Your task to perform on an android device: delete the emails in spam in the gmail app Image 0: 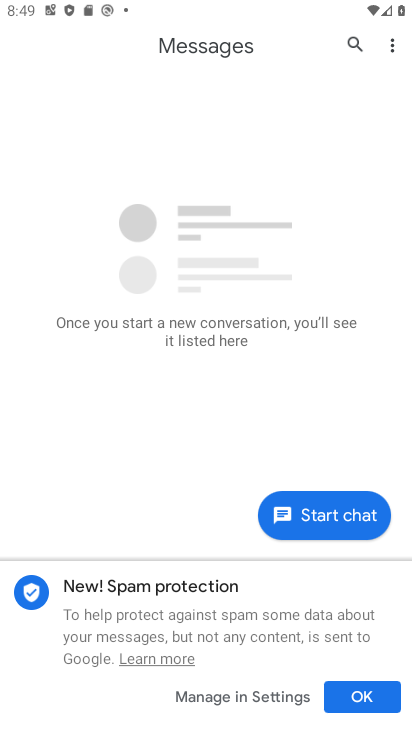
Step 0: press back button
Your task to perform on an android device: delete the emails in spam in the gmail app Image 1: 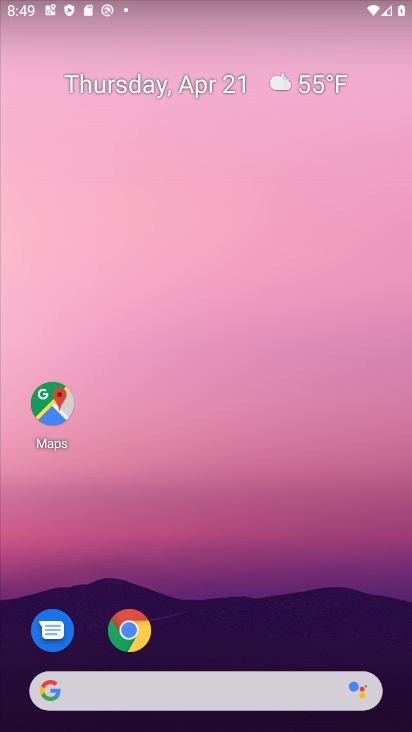
Step 1: drag from (208, 648) to (262, 60)
Your task to perform on an android device: delete the emails in spam in the gmail app Image 2: 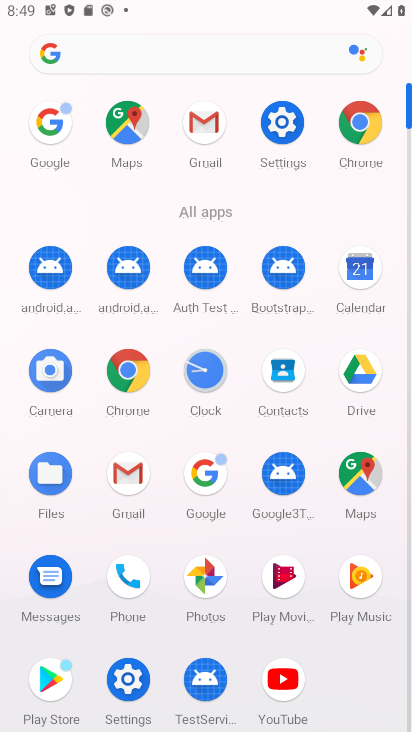
Step 2: click (125, 474)
Your task to perform on an android device: delete the emails in spam in the gmail app Image 3: 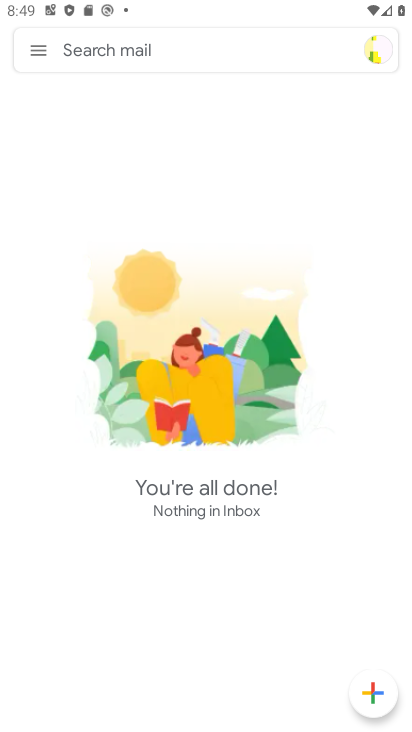
Step 3: click (31, 48)
Your task to perform on an android device: delete the emails in spam in the gmail app Image 4: 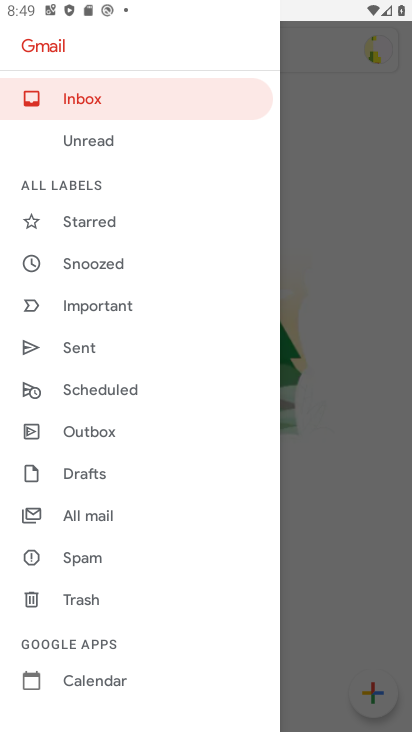
Step 4: click (131, 564)
Your task to perform on an android device: delete the emails in spam in the gmail app Image 5: 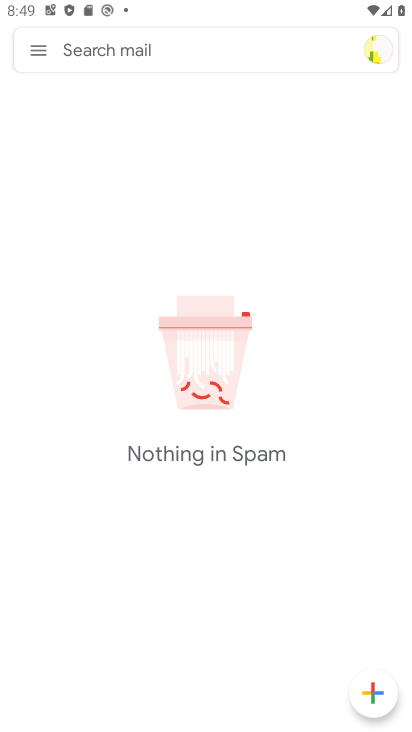
Step 5: task complete